Your task to perform on an android device: Open accessibility settings Image 0: 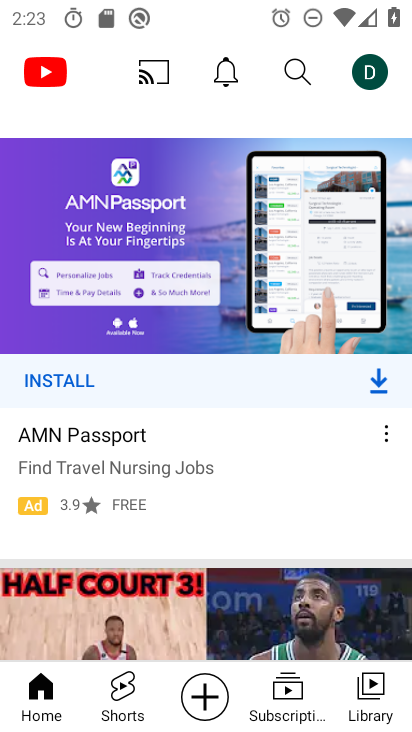
Step 0: press home button
Your task to perform on an android device: Open accessibility settings Image 1: 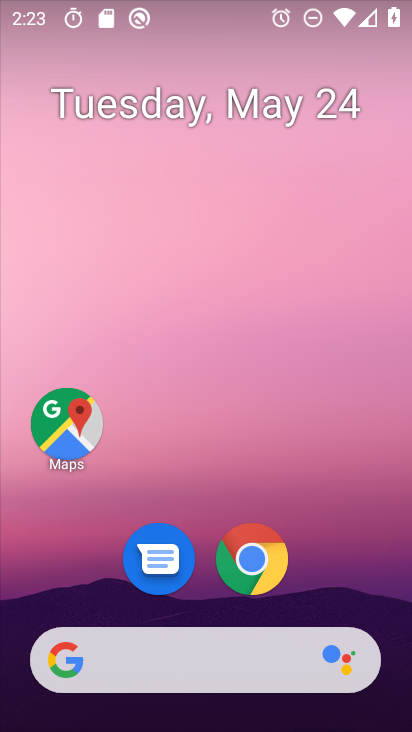
Step 1: drag from (394, 696) to (353, 149)
Your task to perform on an android device: Open accessibility settings Image 2: 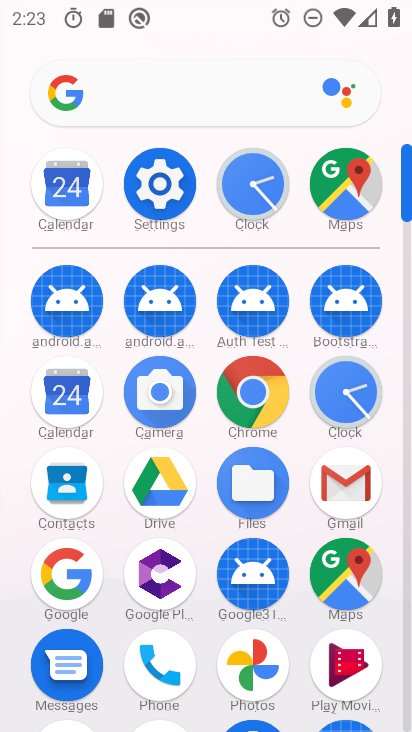
Step 2: click (147, 187)
Your task to perform on an android device: Open accessibility settings Image 3: 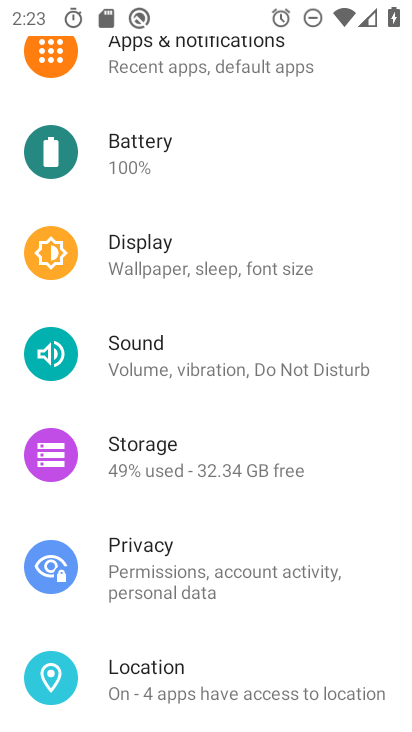
Step 3: drag from (336, 711) to (307, 239)
Your task to perform on an android device: Open accessibility settings Image 4: 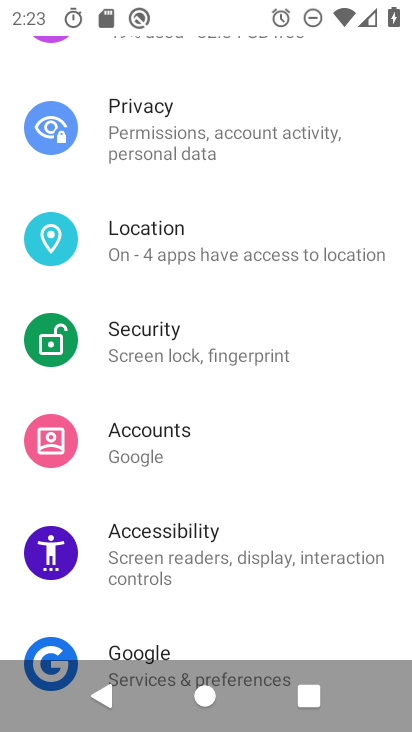
Step 4: click (145, 524)
Your task to perform on an android device: Open accessibility settings Image 5: 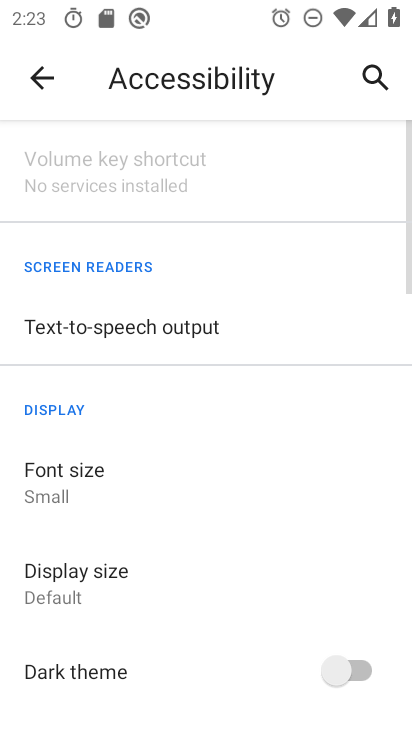
Step 5: task complete